Your task to perform on an android device: turn on wifi Image 0: 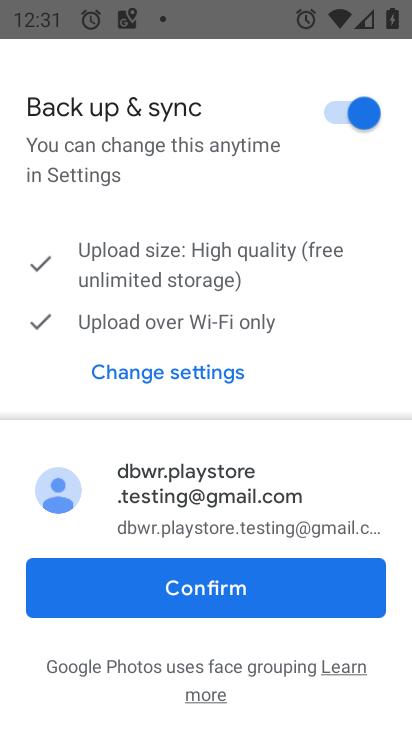
Step 0: press home button
Your task to perform on an android device: turn on wifi Image 1: 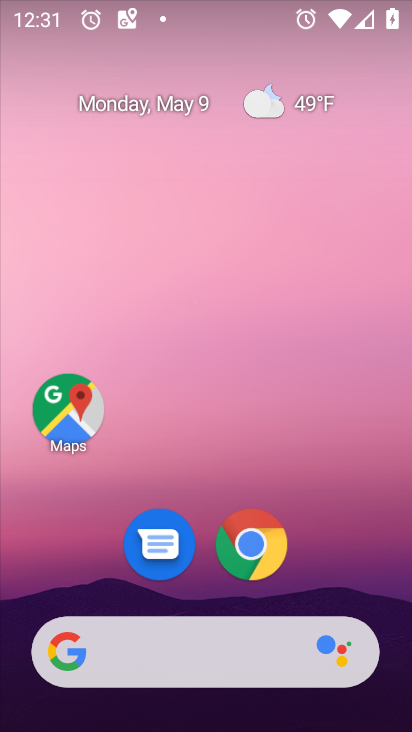
Step 1: drag from (193, 636) to (226, 79)
Your task to perform on an android device: turn on wifi Image 2: 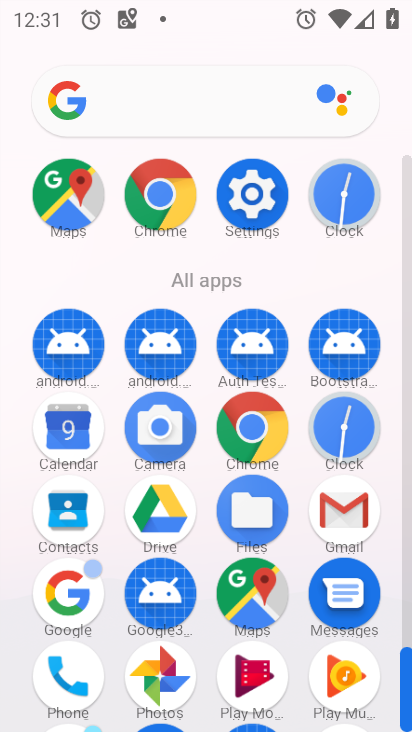
Step 2: click (256, 219)
Your task to perform on an android device: turn on wifi Image 3: 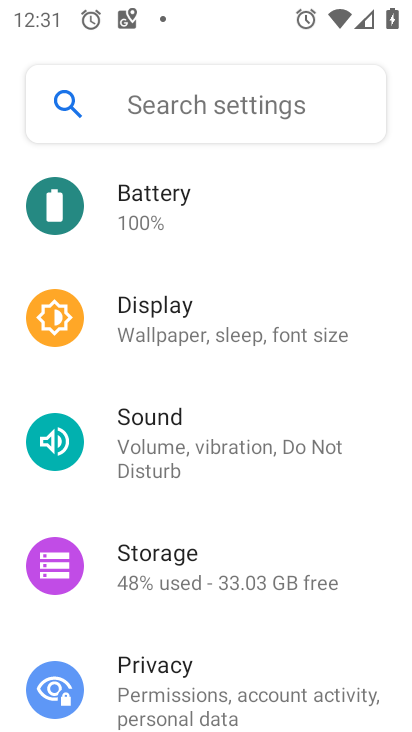
Step 3: drag from (215, 169) to (279, 576)
Your task to perform on an android device: turn on wifi Image 4: 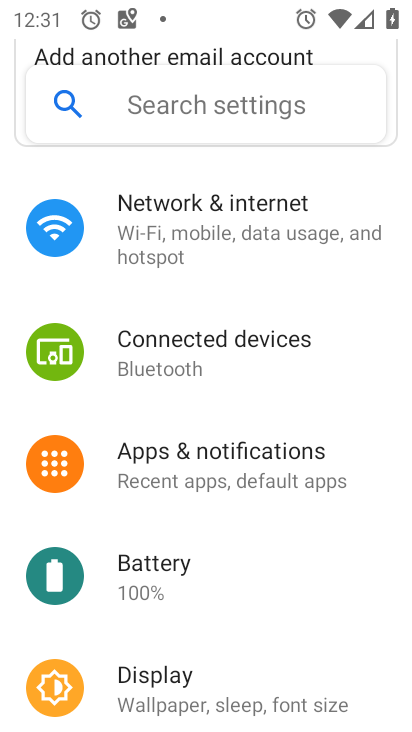
Step 4: click (200, 242)
Your task to perform on an android device: turn on wifi Image 5: 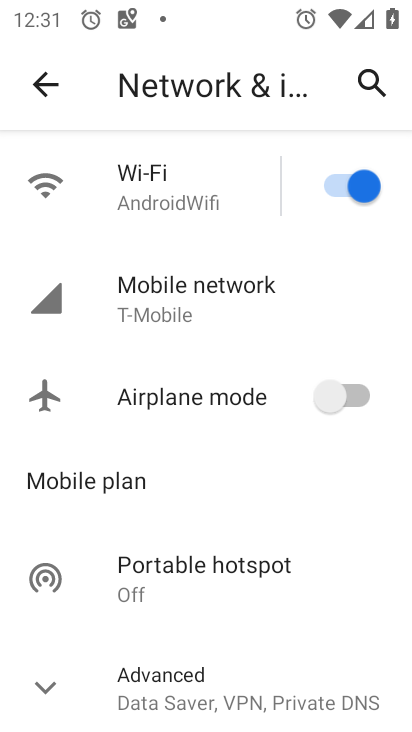
Step 5: task complete